Your task to perform on an android device: Open Google Chrome and open the bookmarks view Image 0: 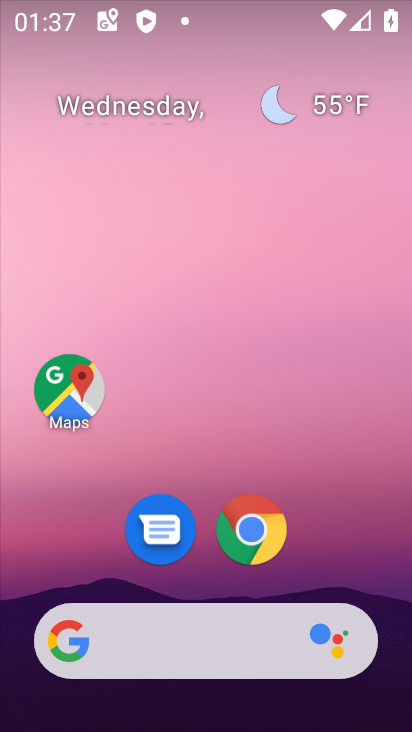
Step 0: click (252, 531)
Your task to perform on an android device: Open Google Chrome and open the bookmarks view Image 1: 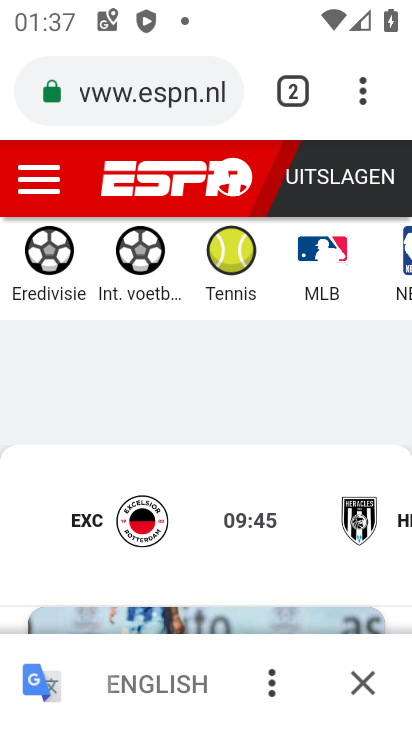
Step 1: click (362, 100)
Your task to perform on an android device: Open Google Chrome and open the bookmarks view Image 2: 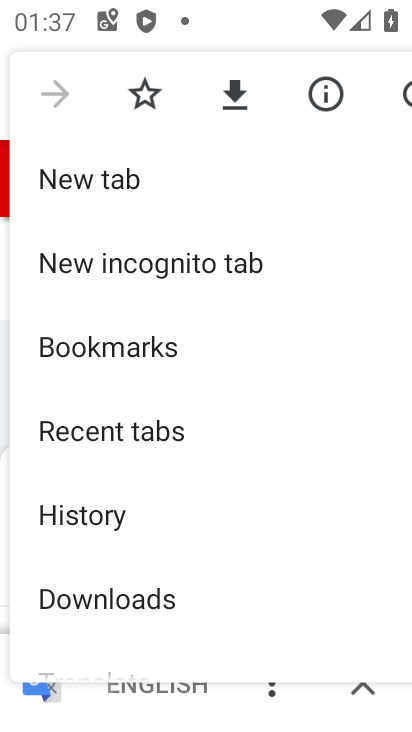
Step 2: click (149, 348)
Your task to perform on an android device: Open Google Chrome and open the bookmarks view Image 3: 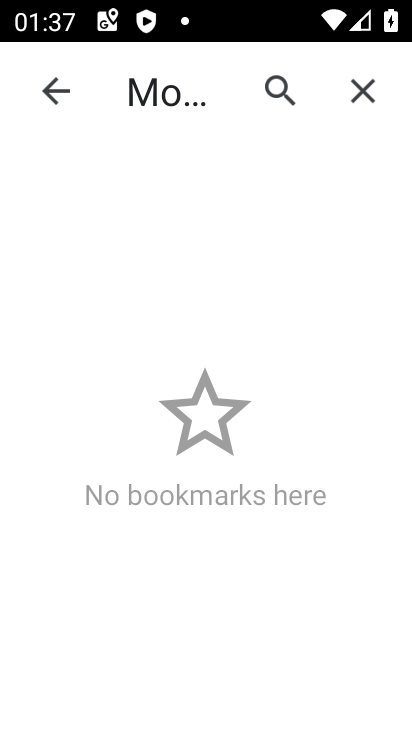
Step 3: task complete